Your task to perform on an android device: Go to Yahoo.com Image 0: 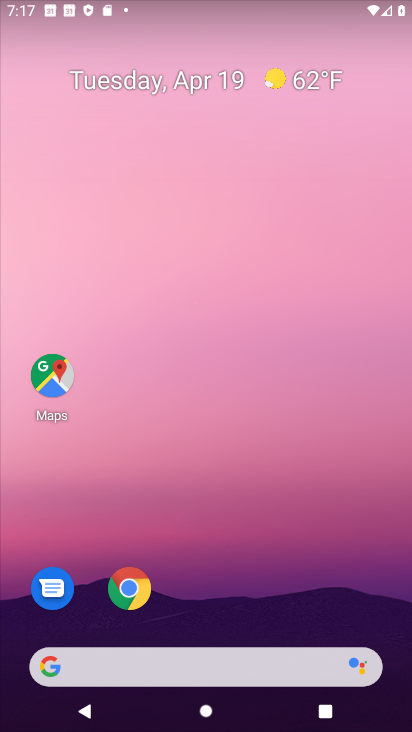
Step 0: click (129, 593)
Your task to perform on an android device: Go to Yahoo.com Image 1: 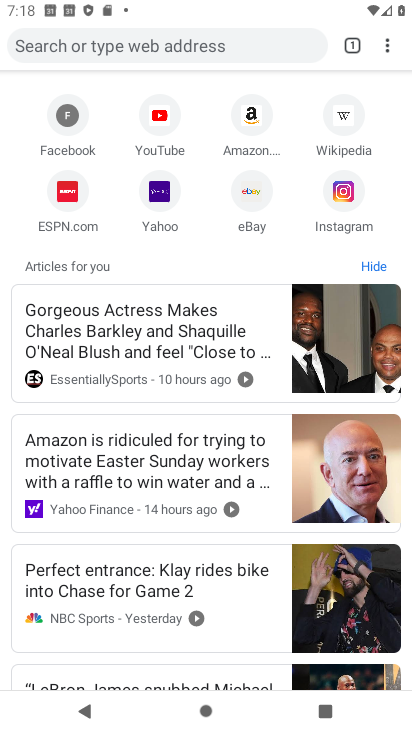
Step 1: click (163, 192)
Your task to perform on an android device: Go to Yahoo.com Image 2: 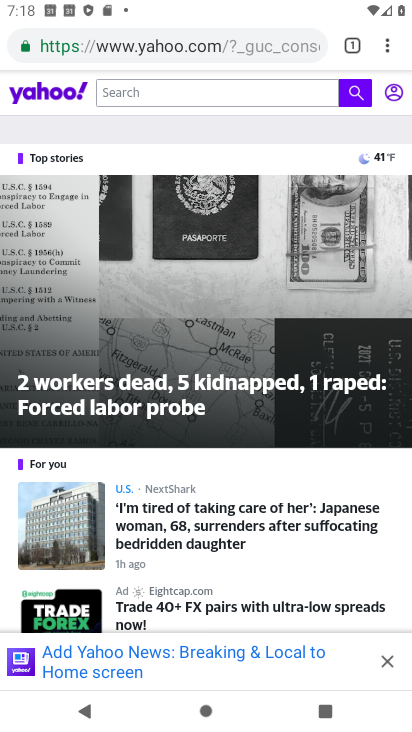
Step 2: task complete